Your task to perform on an android device: Is it going to rain this weekend? Image 0: 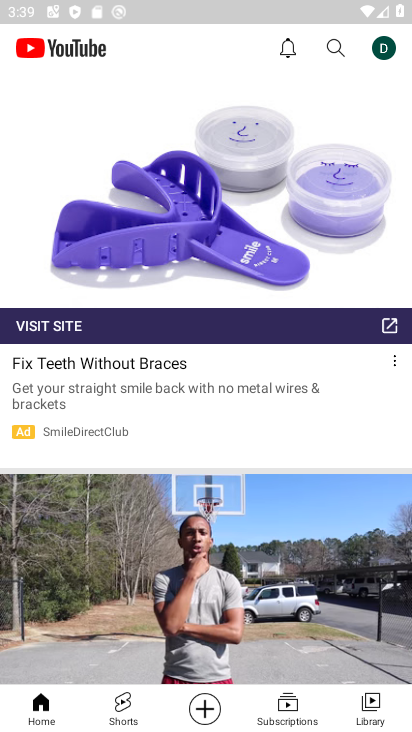
Step 0: press home button
Your task to perform on an android device: Is it going to rain this weekend? Image 1: 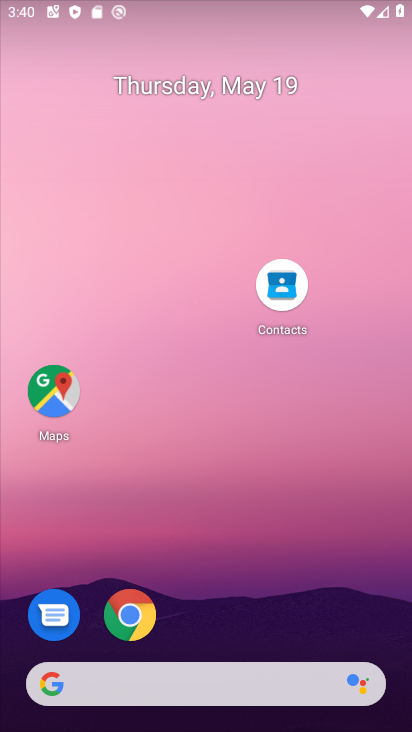
Step 1: drag from (216, 664) to (260, 122)
Your task to perform on an android device: Is it going to rain this weekend? Image 2: 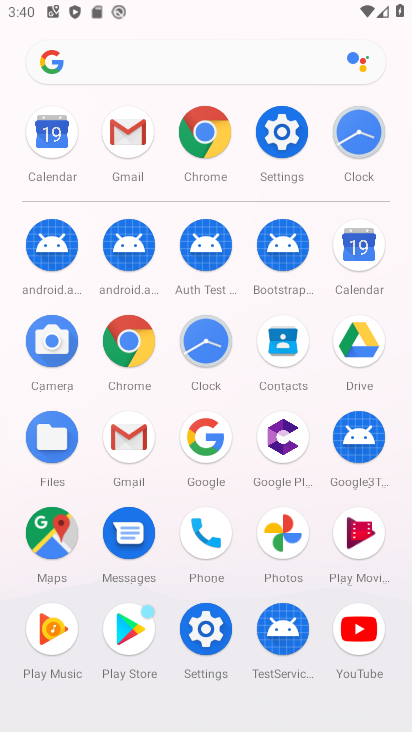
Step 2: click (205, 456)
Your task to perform on an android device: Is it going to rain this weekend? Image 3: 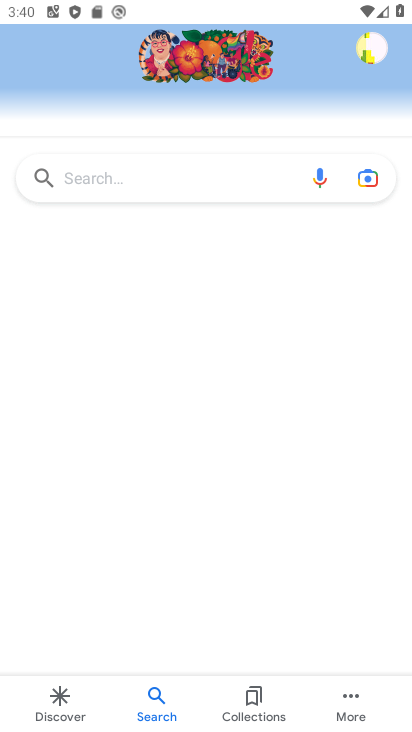
Step 3: click (185, 184)
Your task to perform on an android device: Is it going to rain this weekend? Image 4: 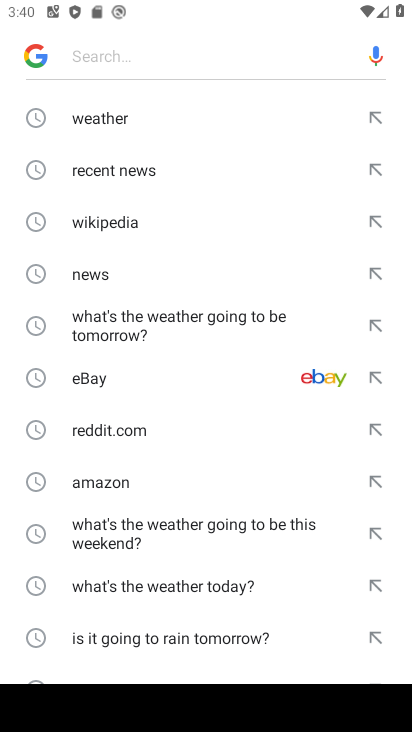
Step 4: click (185, 110)
Your task to perform on an android device: Is it going to rain this weekend? Image 5: 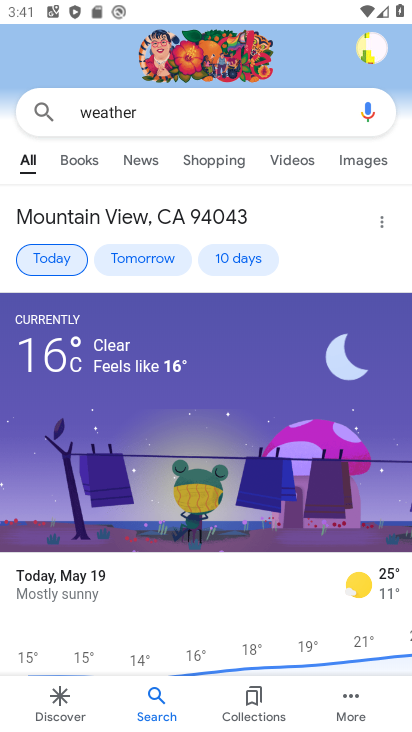
Step 5: click (239, 267)
Your task to perform on an android device: Is it going to rain this weekend? Image 6: 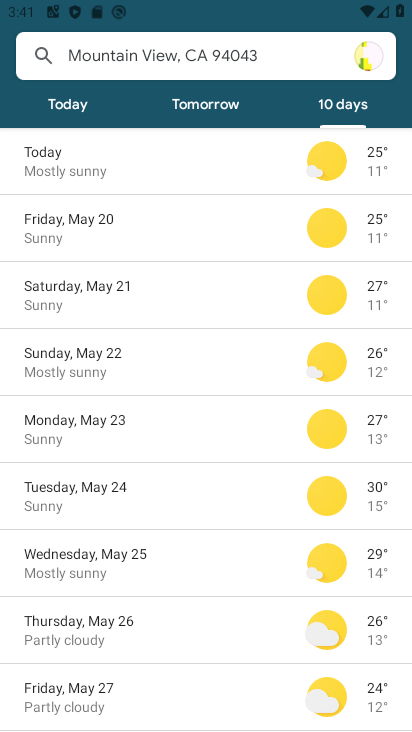
Step 6: task complete